Your task to perform on an android device: toggle translation in the chrome app Image 0: 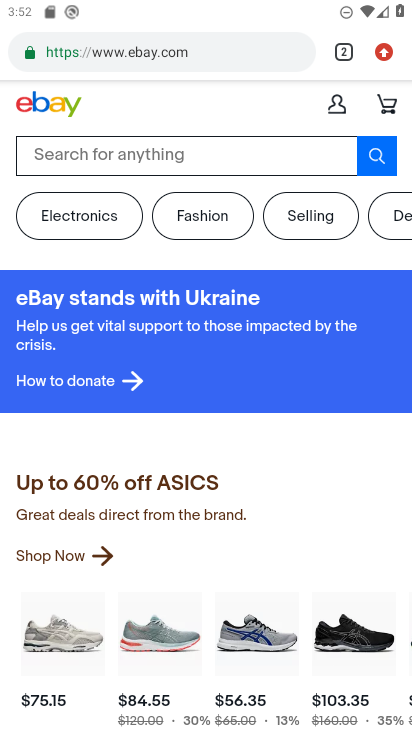
Step 0: click (385, 49)
Your task to perform on an android device: toggle translation in the chrome app Image 1: 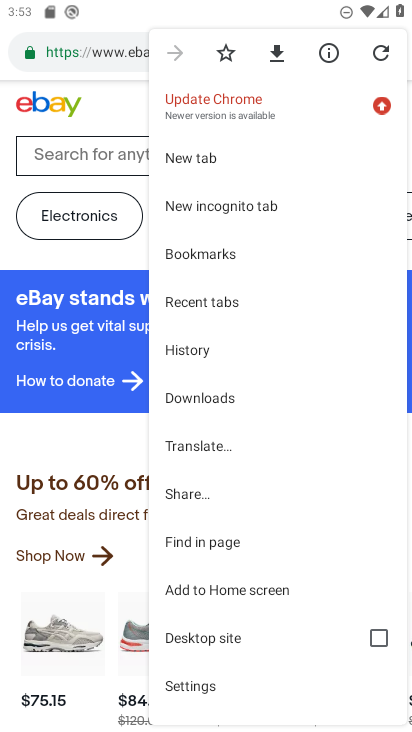
Step 1: click (189, 687)
Your task to perform on an android device: toggle translation in the chrome app Image 2: 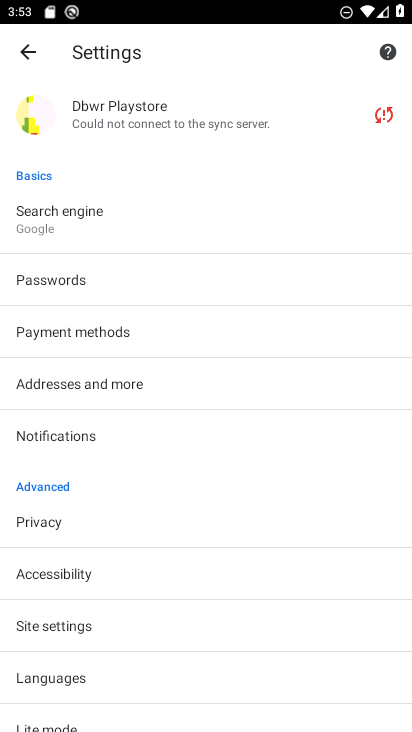
Step 2: click (74, 672)
Your task to perform on an android device: toggle translation in the chrome app Image 3: 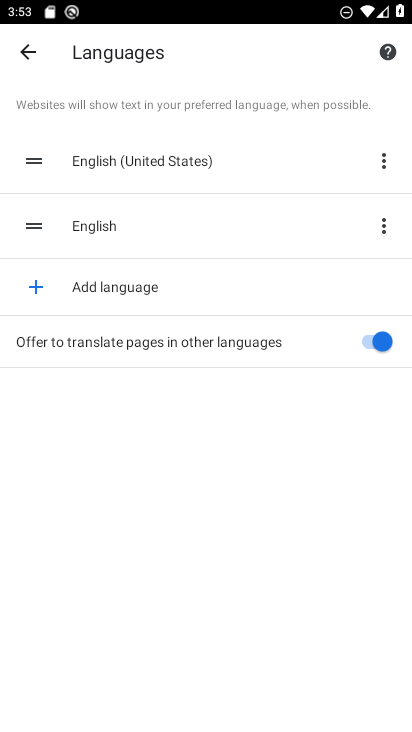
Step 3: click (367, 340)
Your task to perform on an android device: toggle translation in the chrome app Image 4: 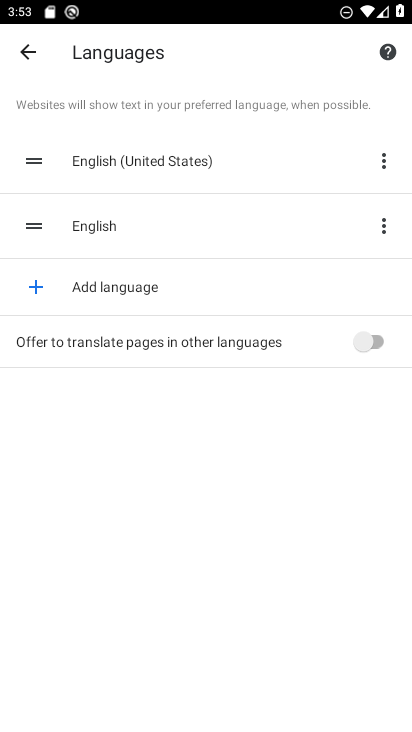
Step 4: task complete